Your task to perform on an android device: What is the news today? Image 0: 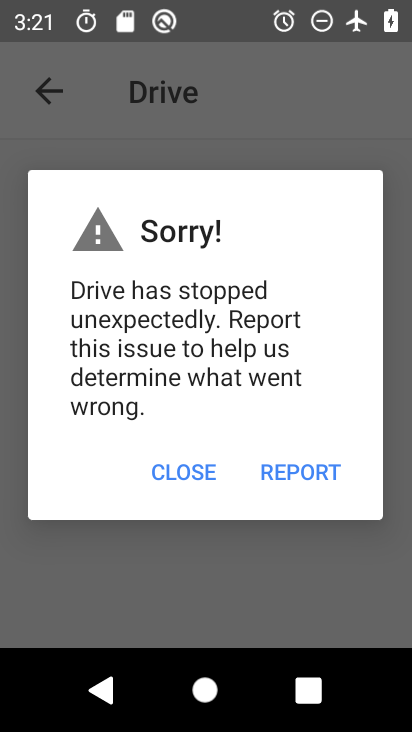
Step 0: press home button
Your task to perform on an android device: What is the news today? Image 1: 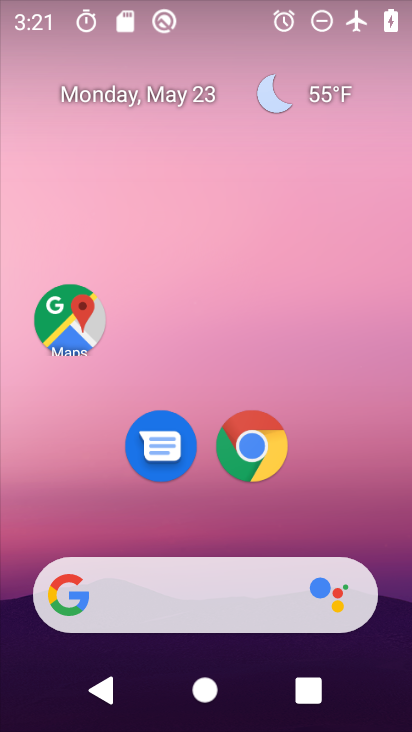
Step 1: drag from (203, 524) to (160, 128)
Your task to perform on an android device: What is the news today? Image 2: 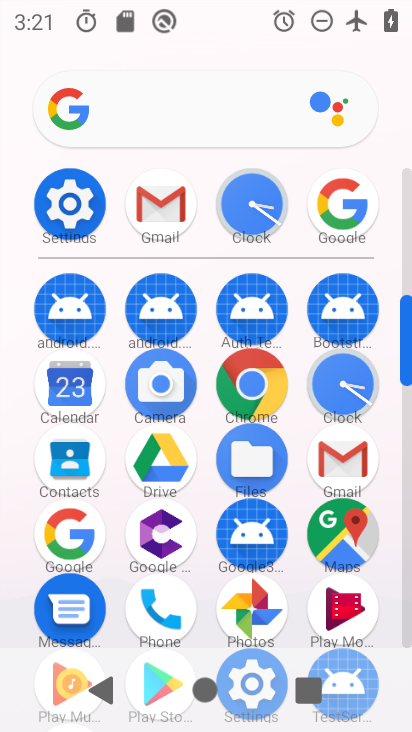
Step 2: click (65, 537)
Your task to perform on an android device: What is the news today? Image 3: 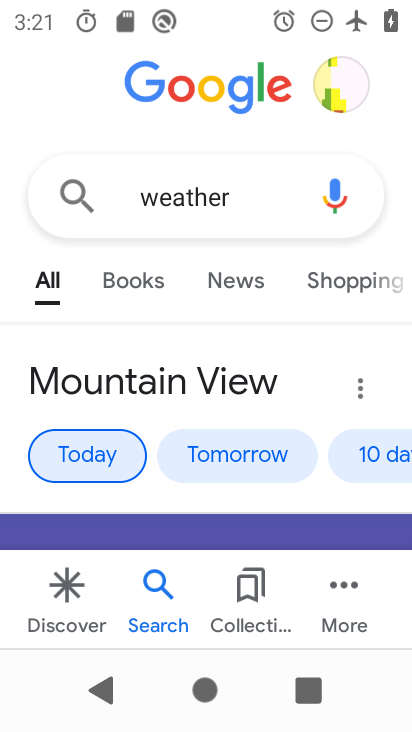
Step 3: click (176, 194)
Your task to perform on an android device: What is the news today? Image 4: 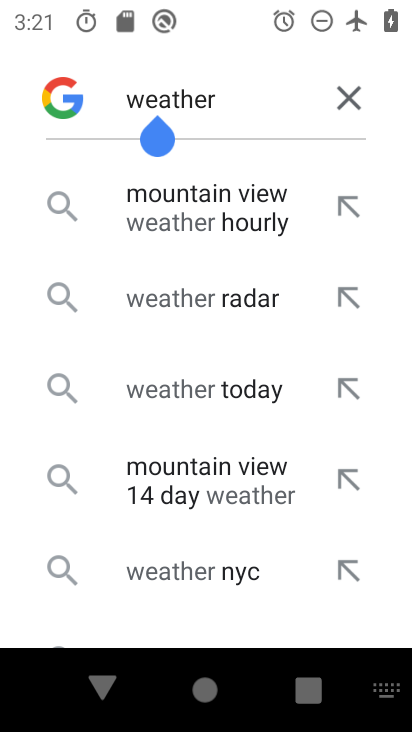
Step 4: click (341, 92)
Your task to perform on an android device: What is the news today? Image 5: 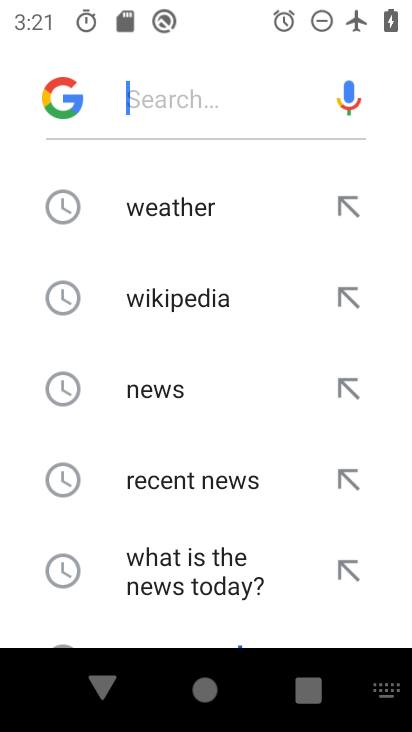
Step 5: click (182, 378)
Your task to perform on an android device: What is the news today? Image 6: 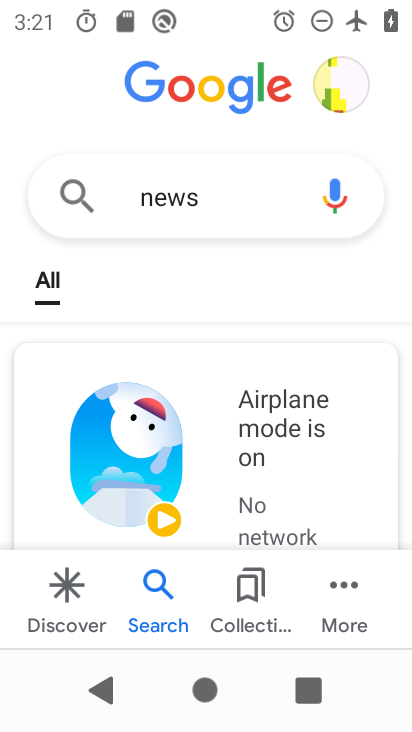
Step 6: task complete